Your task to perform on an android device: open a bookmark in the chrome app Image 0: 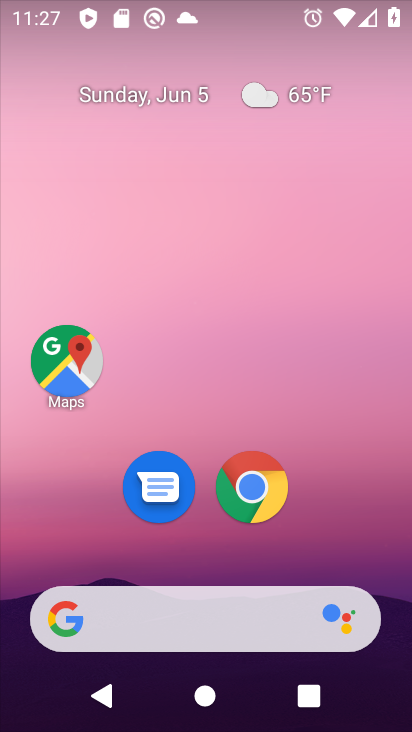
Step 0: click (253, 490)
Your task to perform on an android device: open a bookmark in the chrome app Image 1: 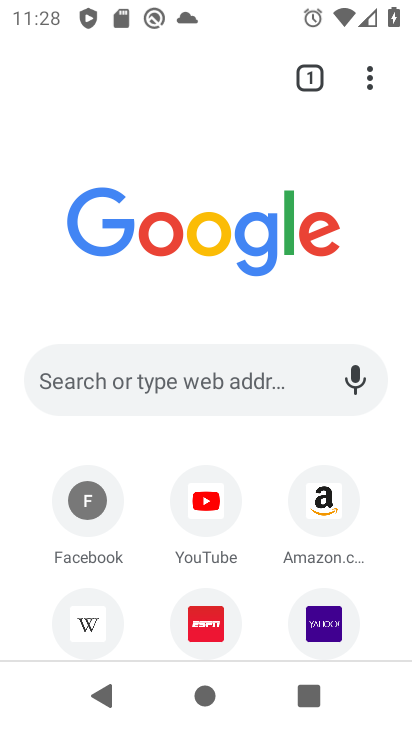
Step 1: click (369, 76)
Your task to perform on an android device: open a bookmark in the chrome app Image 2: 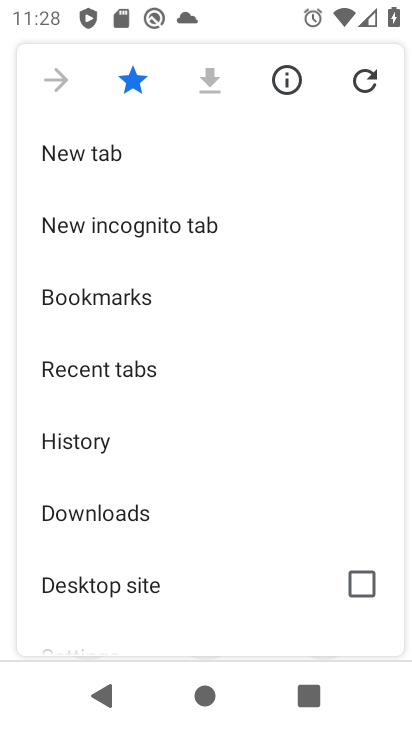
Step 2: click (148, 304)
Your task to perform on an android device: open a bookmark in the chrome app Image 3: 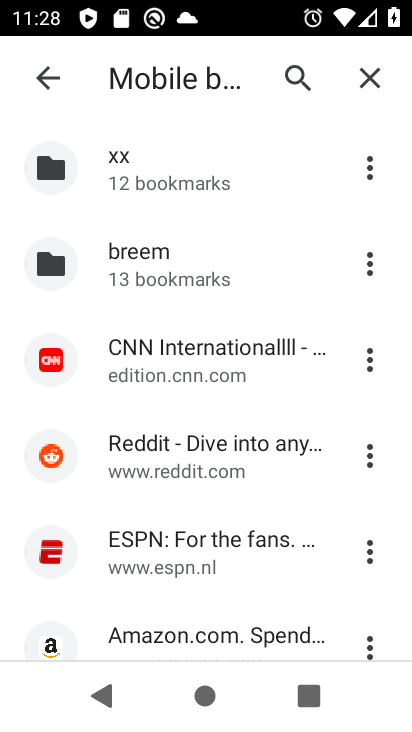
Step 3: task complete